Your task to perform on an android device: delete browsing data in the chrome app Image 0: 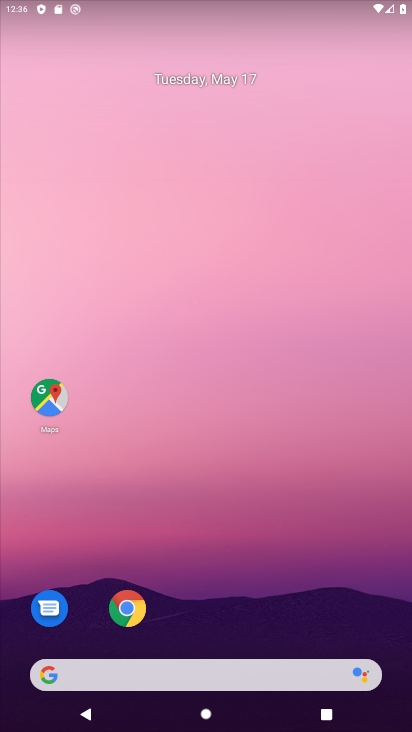
Step 0: click (132, 622)
Your task to perform on an android device: delete browsing data in the chrome app Image 1: 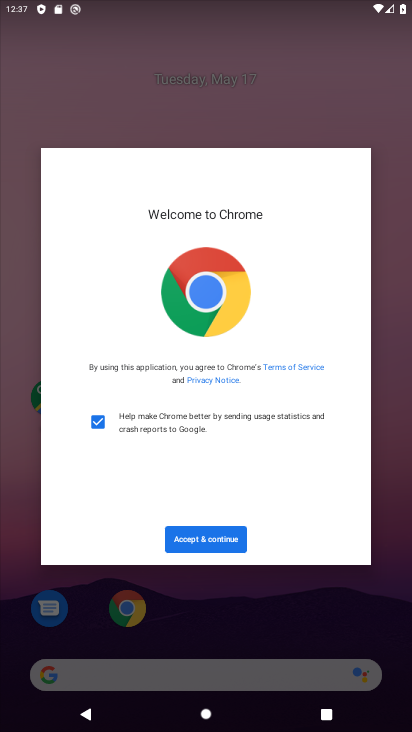
Step 1: click (220, 539)
Your task to perform on an android device: delete browsing data in the chrome app Image 2: 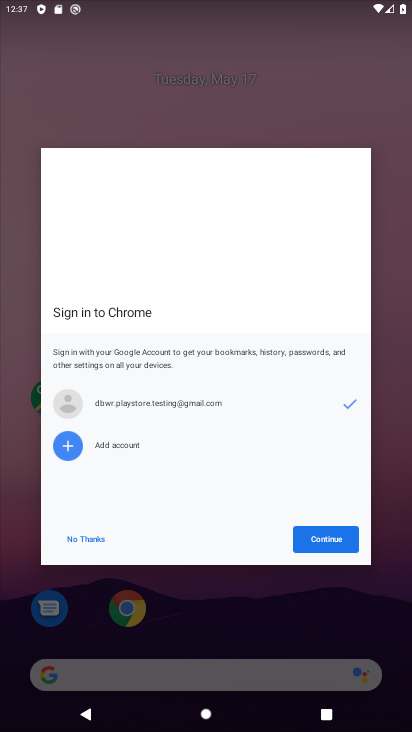
Step 2: click (305, 535)
Your task to perform on an android device: delete browsing data in the chrome app Image 3: 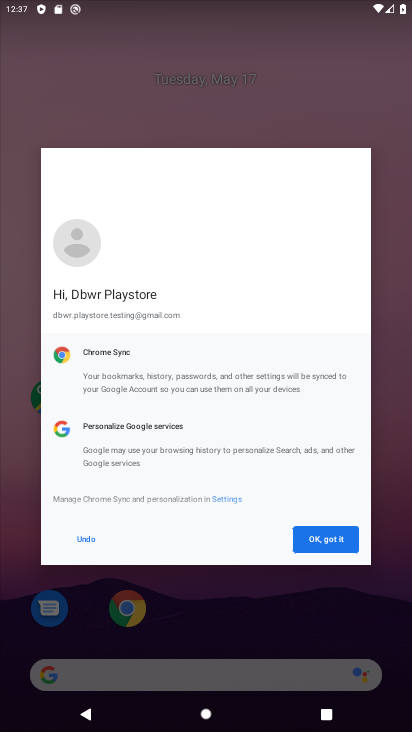
Step 3: click (305, 535)
Your task to perform on an android device: delete browsing data in the chrome app Image 4: 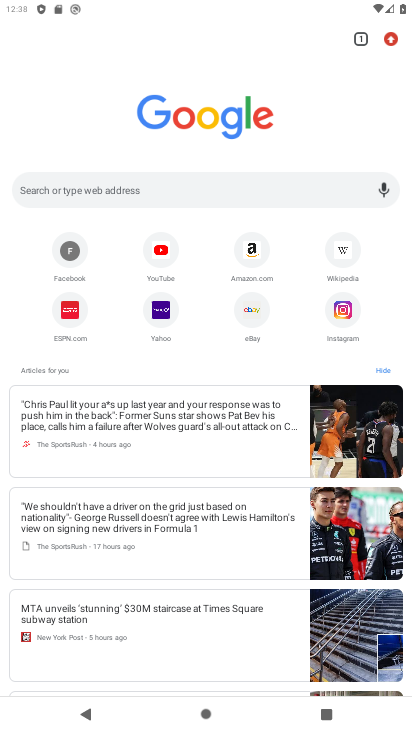
Step 4: click (389, 49)
Your task to perform on an android device: delete browsing data in the chrome app Image 5: 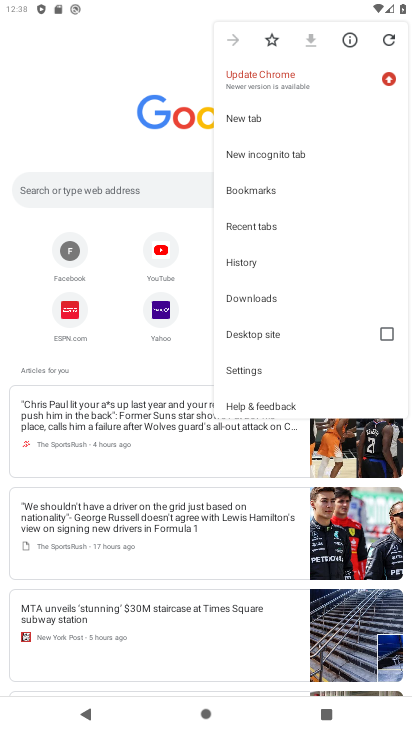
Step 5: click (231, 262)
Your task to perform on an android device: delete browsing data in the chrome app Image 6: 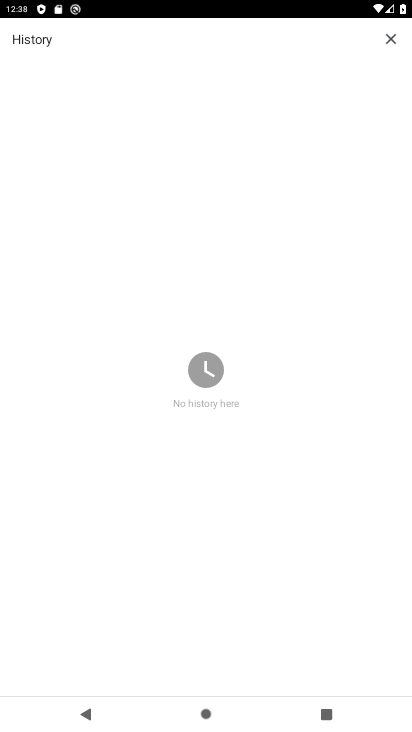
Step 6: task complete